Your task to perform on an android device: change keyboard looks Image 0: 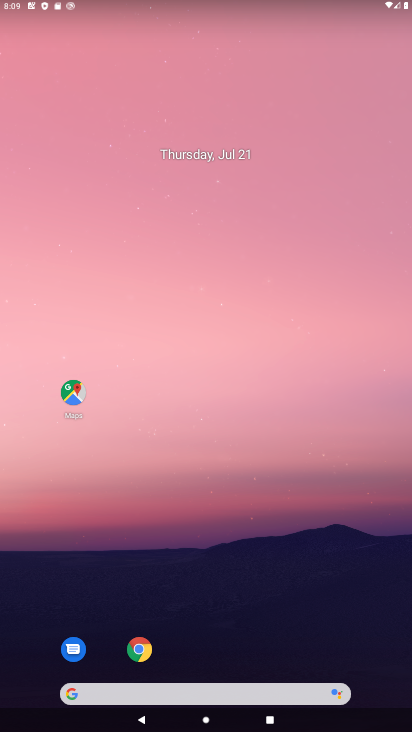
Step 0: drag from (210, 631) to (65, 1)
Your task to perform on an android device: change keyboard looks Image 1: 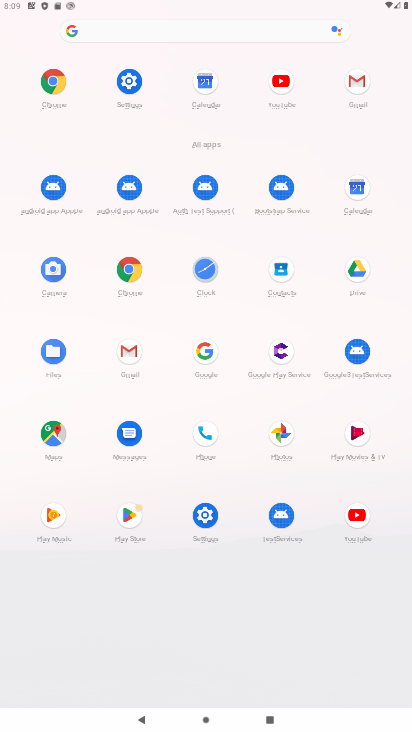
Step 1: click (197, 531)
Your task to perform on an android device: change keyboard looks Image 2: 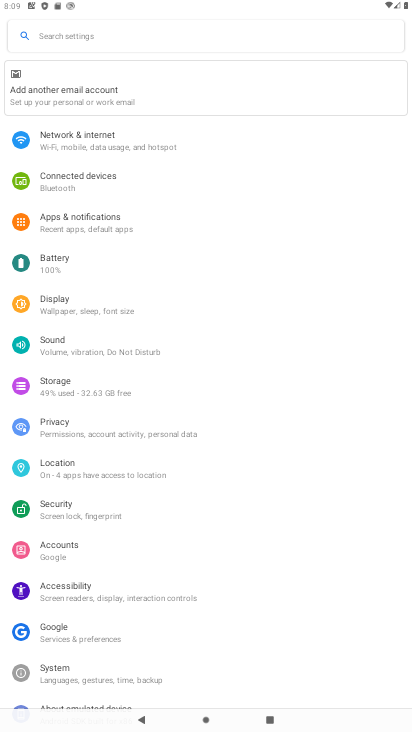
Step 2: click (86, 675)
Your task to perform on an android device: change keyboard looks Image 3: 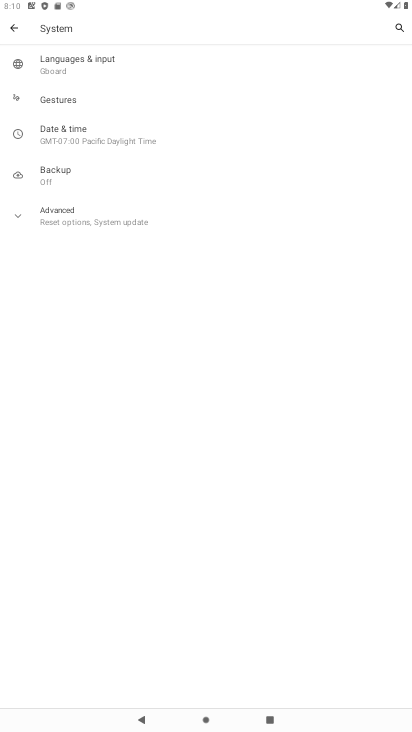
Step 3: click (71, 59)
Your task to perform on an android device: change keyboard looks Image 4: 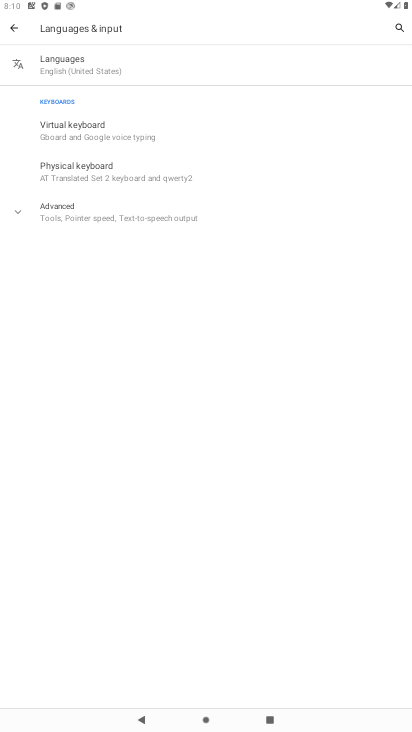
Step 4: click (87, 129)
Your task to perform on an android device: change keyboard looks Image 5: 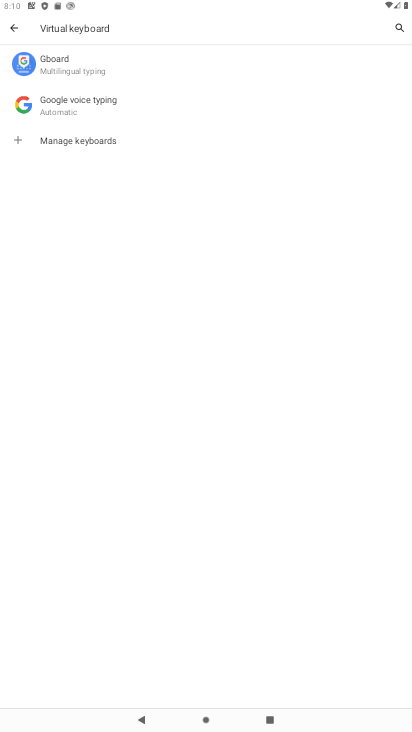
Step 5: click (71, 64)
Your task to perform on an android device: change keyboard looks Image 6: 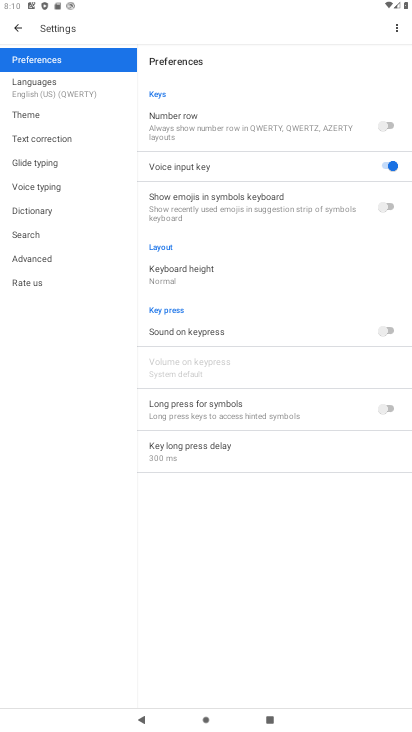
Step 6: click (46, 122)
Your task to perform on an android device: change keyboard looks Image 7: 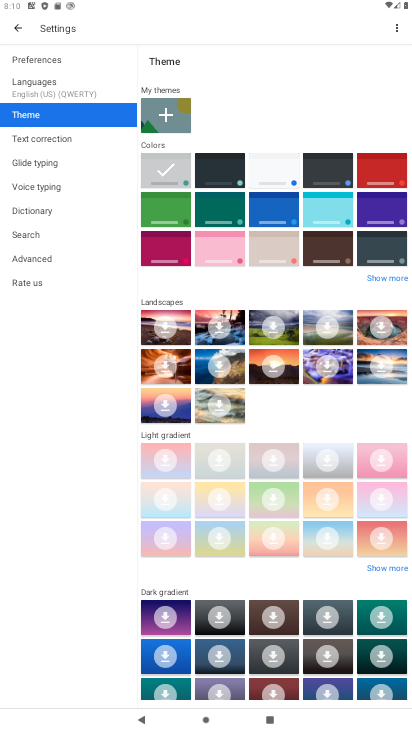
Step 7: click (220, 167)
Your task to perform on an android device: change keyboard looks Image 8: 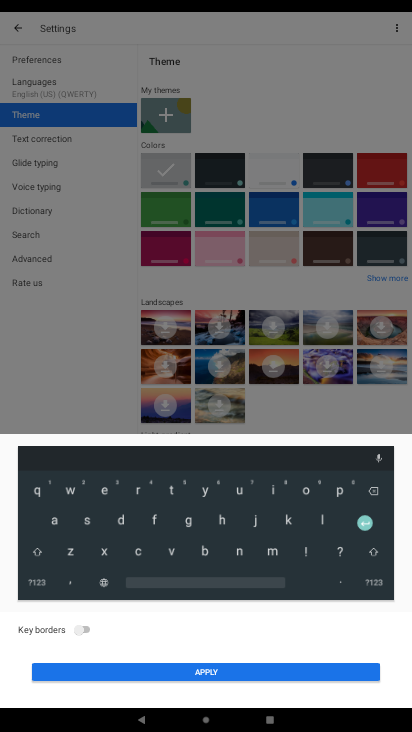
Step 8: click (237, 672)
Your task to perform on an android device: change keyboard looks Image 9: 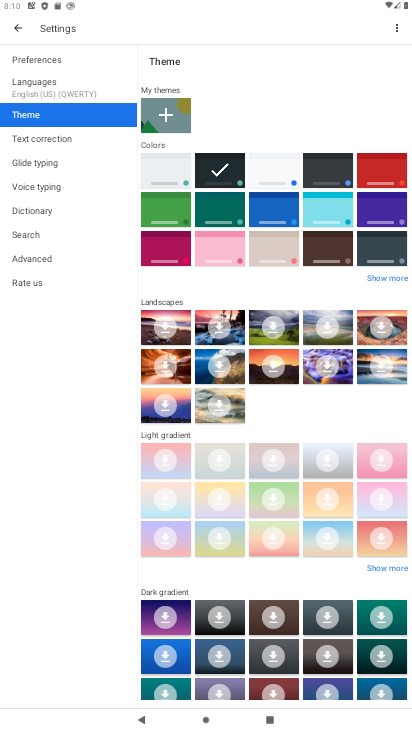
Step 9: task complete